Your task to perform on an android device: Open Google Chrome and click the shortcut for Amazon.com Image 0: 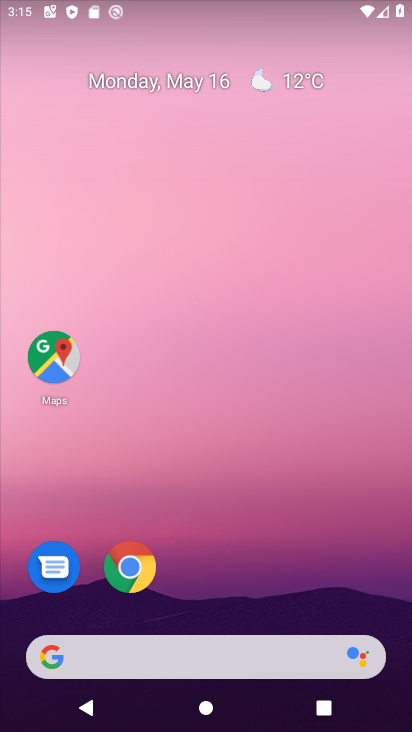
Step 0: click (131, 561)
Your task to perform on an android device: Open Google Chrome and click the shortcut for Amazon.com Image 1: 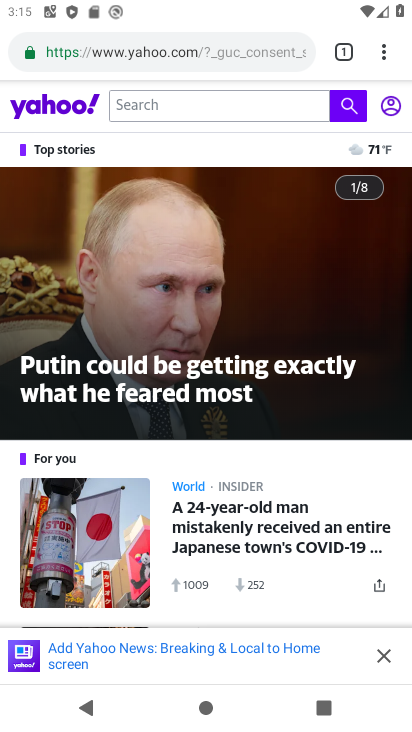
Step 1: drag from (387, 44) to (172, 167)
Your task to perform on an android device: Open Google Chrome and click the shortcut for Amazon.com Image 2: 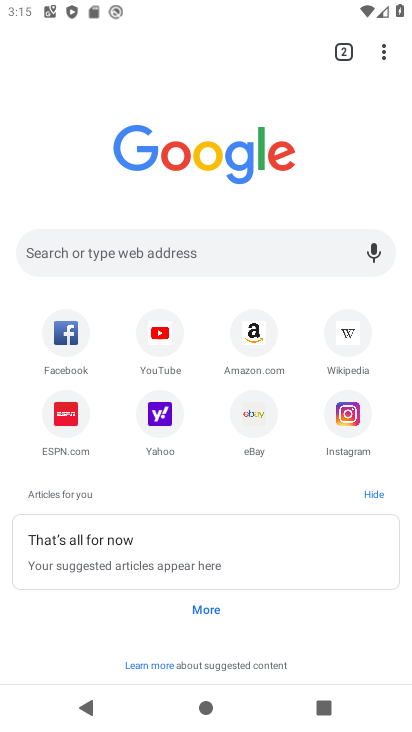
Step 2: click (249, 324)
Your task to perform on an android device: Open Google Chrome and click the shortcut for Amazon.com Image 3: 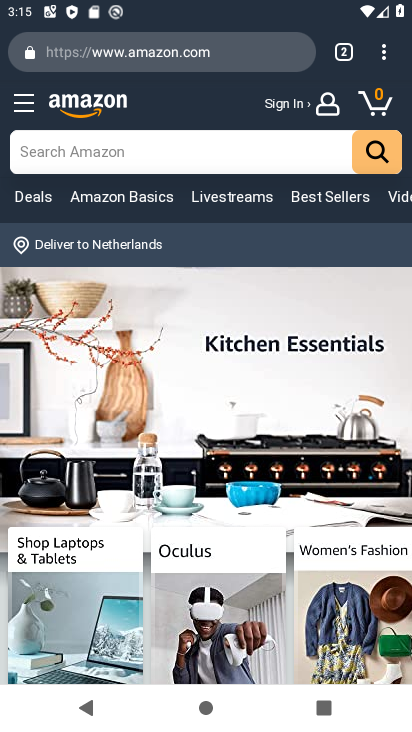
Step 3: task complete